Your task to perform on an android device: Find coffee shops on Maps Image 0: 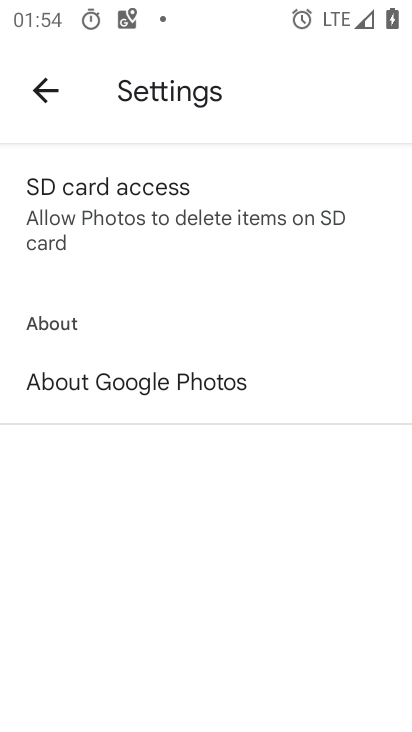
Step 0: press home button
Your task to perform on an android device: Find coffee shops on Maps Image 1: 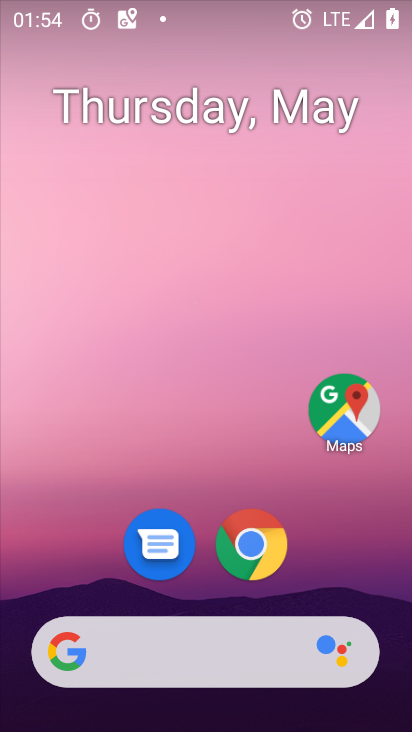
Step 1: drag from (355, 535) to (358, 402)
Your task to perform on an android device: Find coffee shops on Maps Image 2: 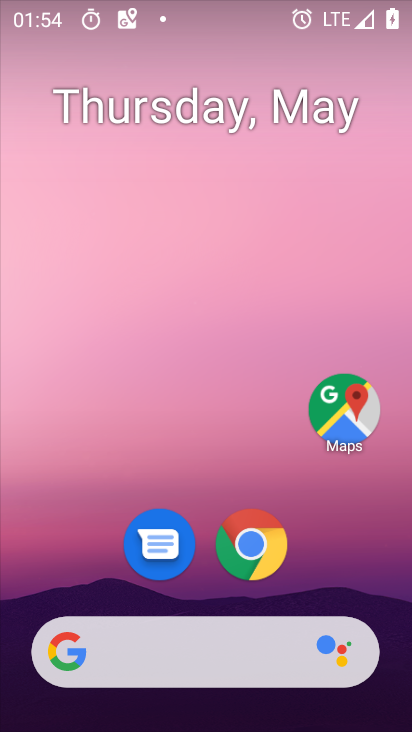
Step 2: drag from (321, 587) to (309, 46)
Your task to perform on an android device: Find coffee shops on Maps Image 3: 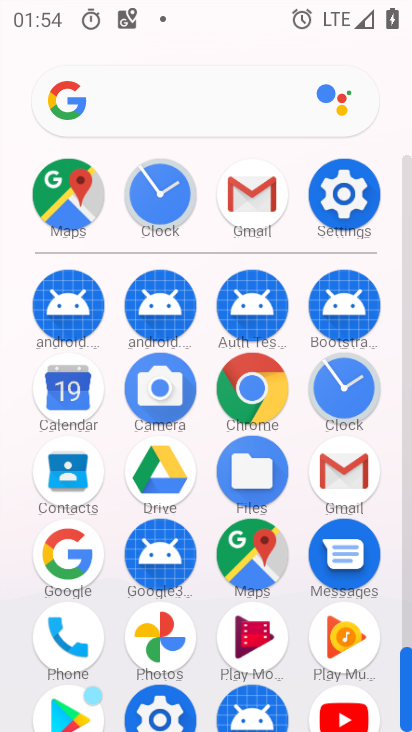
Step 3: click (254, 567)
Your task to perform on an android device: Find coffee shops on Maps Image 4: 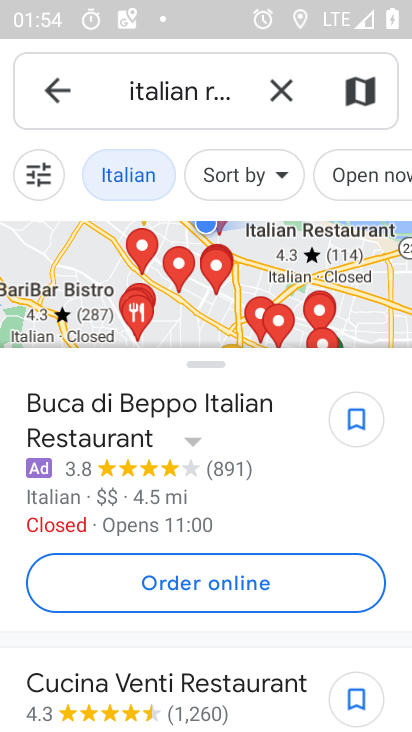
Step 4: click (284, 90)
Your task to perform on an android device: Find coffee shops on Maps Image 5: 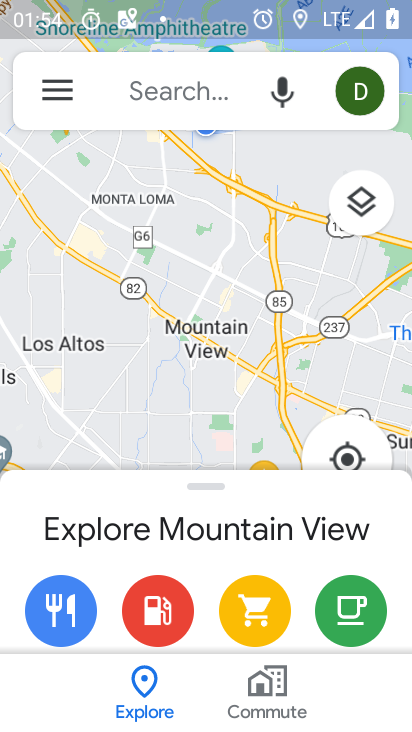
Step 5: click (191, 84)
Your task to perform on an android device: Find coffee shops on Maps Image 6: 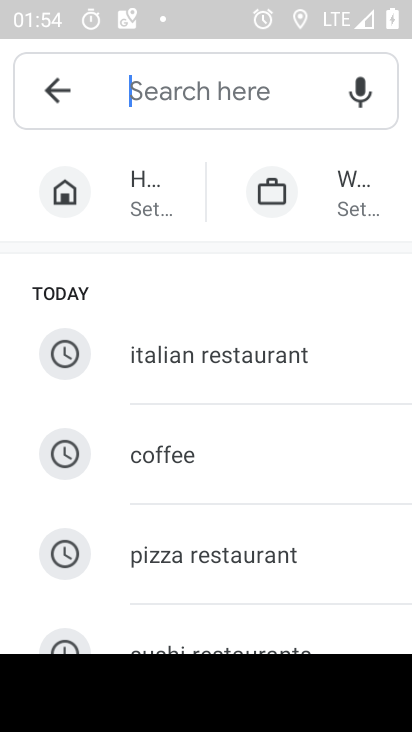
Step 6: type "coffee"
Your task to perform on an android device: Find coffee shops on Maps Image 7: 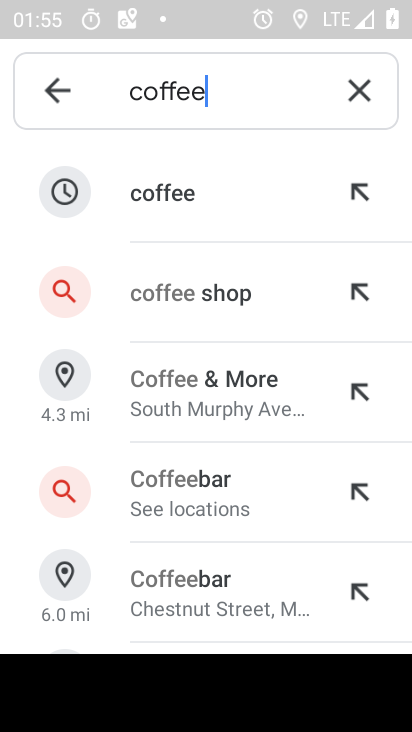
Step 7: click (193, 203)
Your task to perform on an android device: Find coffee shops on Maps Image 8: 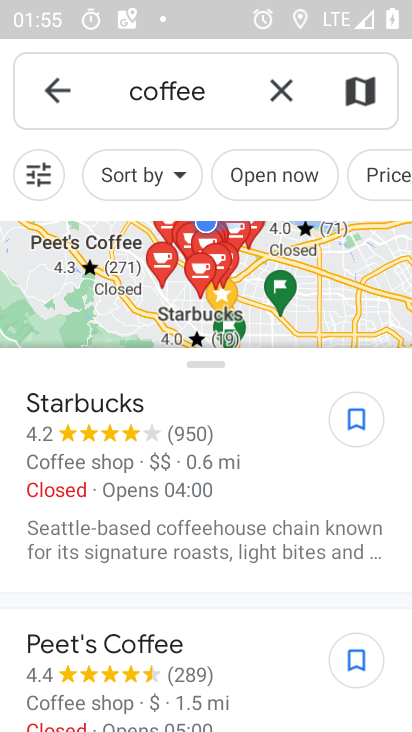
Step 8: task complete